Your task to perform on an android device: turn on the 12-hour format for clock Image 0: 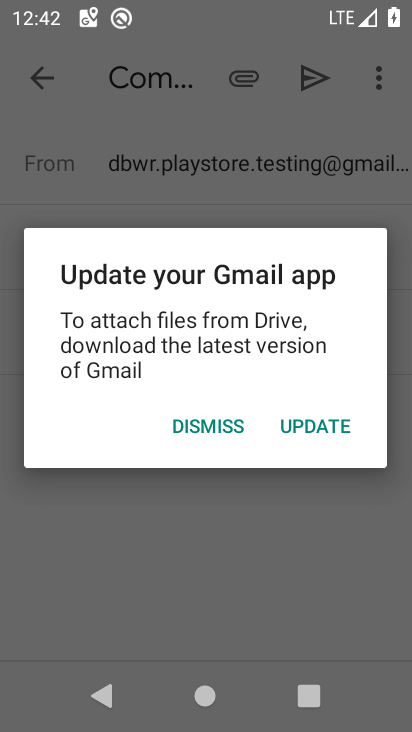
Step 0: click (213, 431)
Your task to perform on an android device: turn on the 12-hour format for clock Image 1: 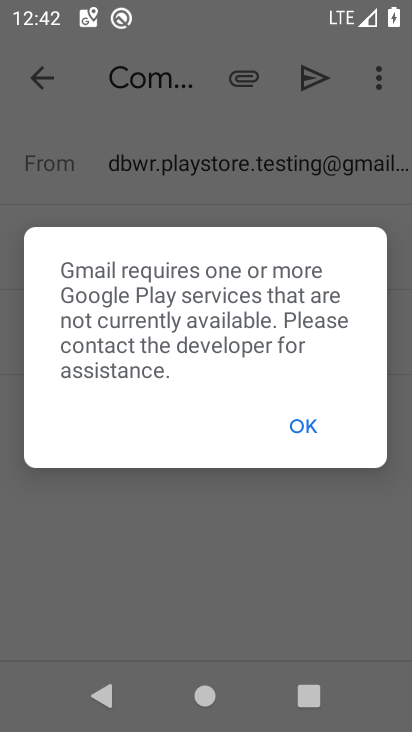
Step 1: click (308, 421)
Your task to perform on an android device: turn on the 12-hour format for clock Image 2: 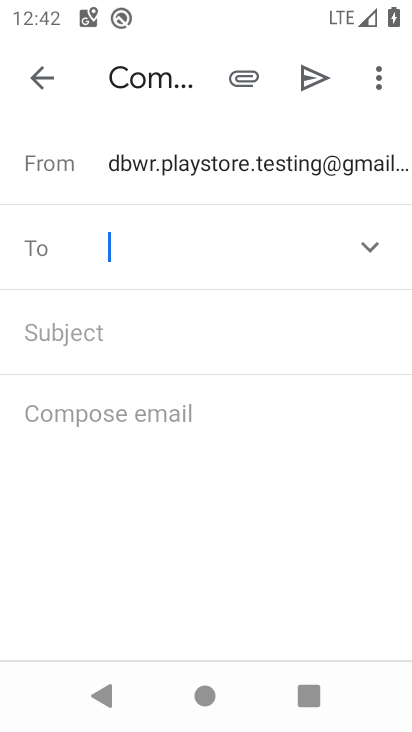
Step 2: click (35, 77)
Your task to perform on an android device: turn on the 12-hour format for clock Image 3: 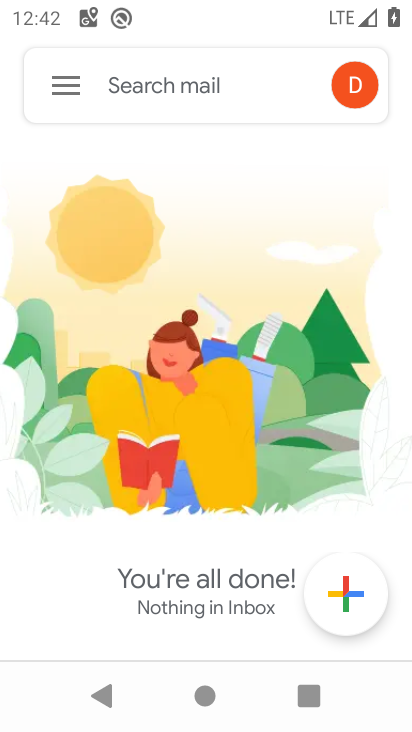
Step 3: press back button
Your task to perform on an android device: turn on the 12-hour format for clock Image 4: 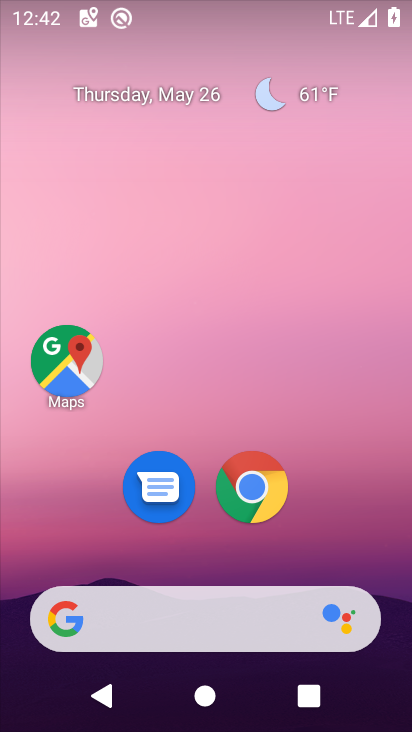
Step 4: drag from (254, 647) to (154, 35)
Your task to perform on an android device: turn on the 12-hour format for clock Image 5: 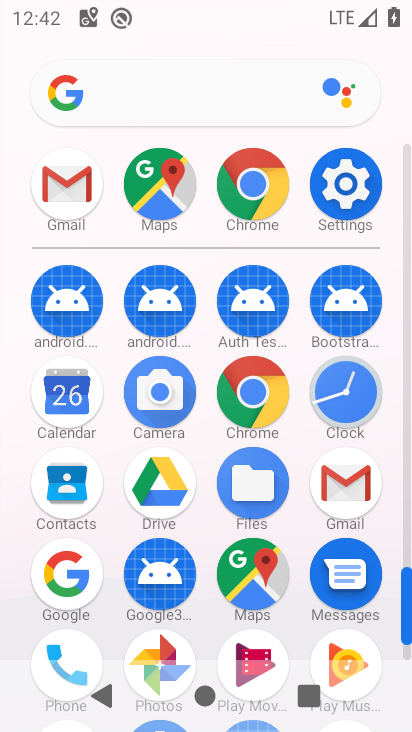
Step 5: click (310, 395)
Your task to perform on an android device: turn on the 12-hour format for clock Image 6: 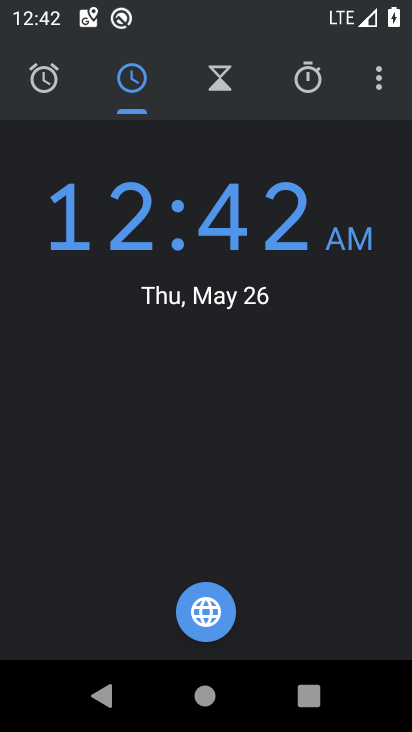
Step 6: click (373, 89)
Your task to perform on an android device: turn on the 12-hour format for clock Image 7: 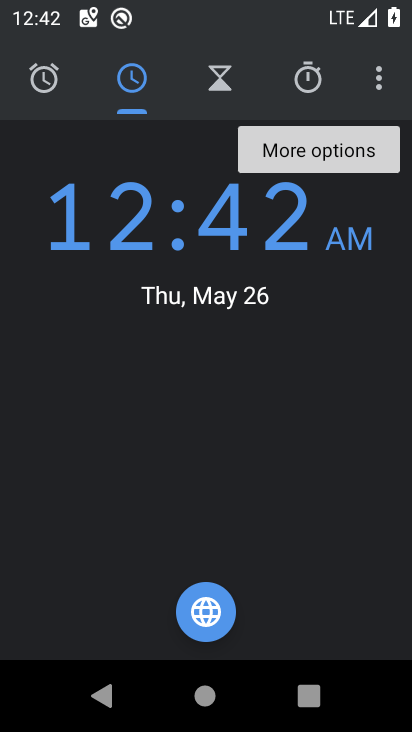
Step 7: click (340, 154)
Your task to perform on an android device: turn on the 12-hour format for clock Image 8: 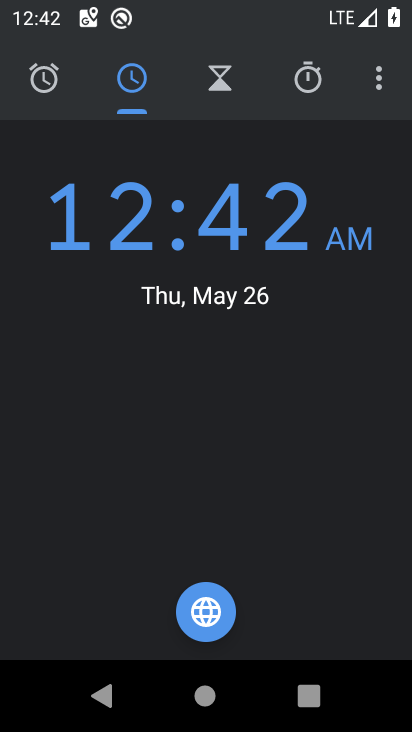
Step 8: click (373, 77)
Your task to perform on an android device: turn on the 12-hour format for clock Image 9: 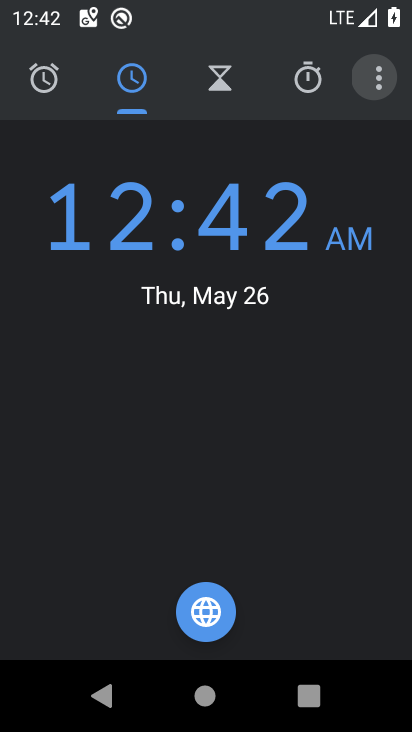
Step 9: click (373, 77)
Your task to perform on an android device: turn on the 12-hour format for clock Image 10: 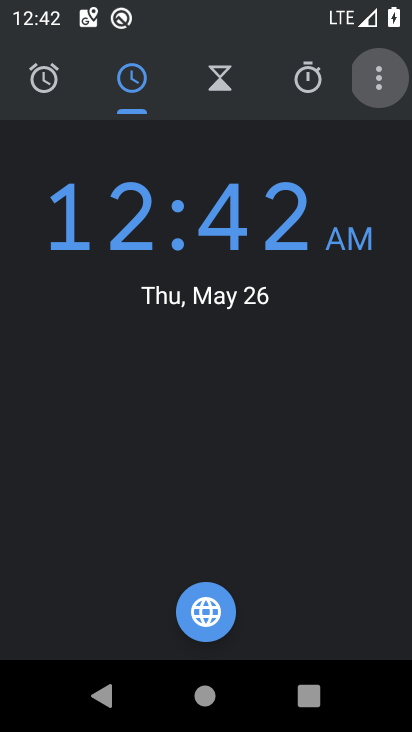
Step 10: click (373, 77)
Your task to perform on an android device: turn on the 12-hour format for clock Image 11: 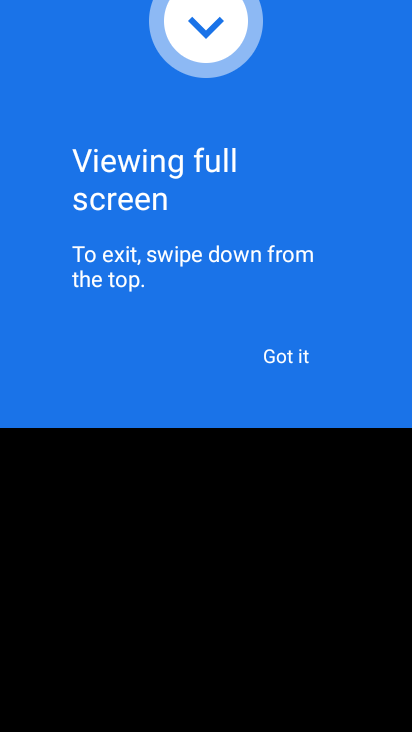
Step 11: press back button
Your task to perform on an android device: turn on the 12-hour format for clock Image 12: 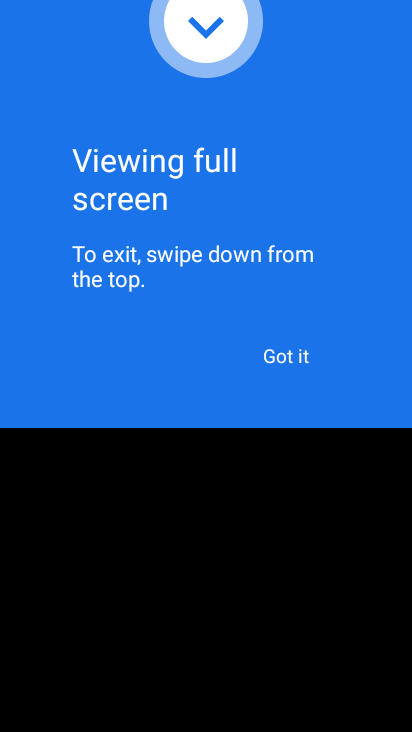
Step 12: drag from (351, 552) to (311, 248)
Your task to perform on an android device: turn on the 12-hour format for clock Image 13: 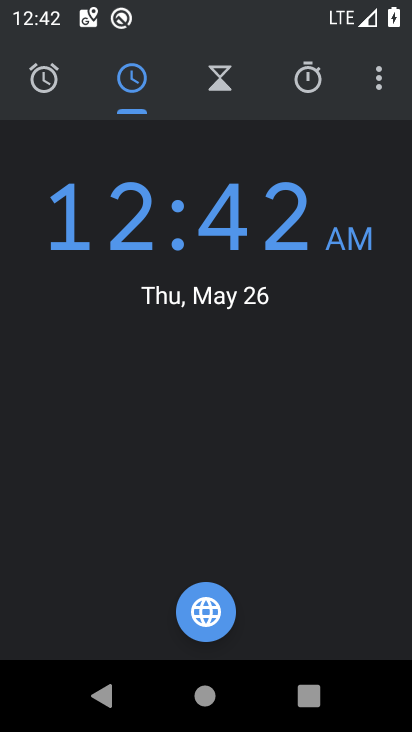
Step 13: drag from (372, 81) to (327, 155)
Your task to perform on an android device: turn on the 12-hour format for clock Image 14: 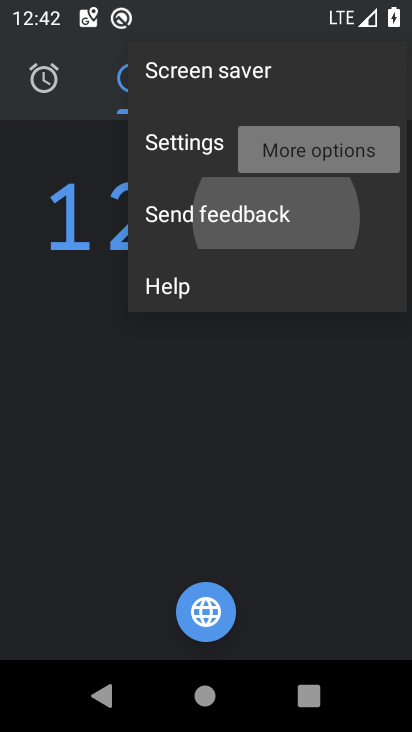
Step 14: click (327, 155)
Your task to perform on an android device: turn on the 12-hour format for clock Image 15: 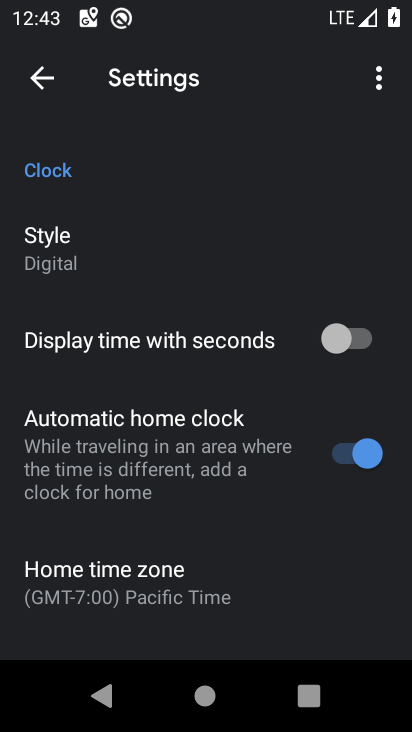
Step 15: drag from (200, 505) to (167, 123)
Your task to perform on an android device: turn on the 12-hour format for clock Image 16: 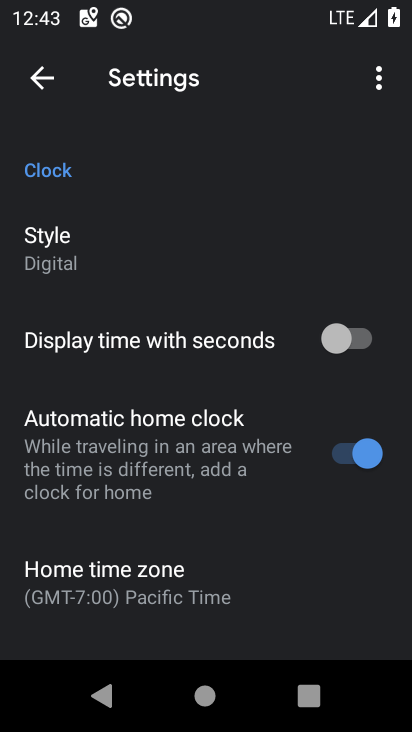
Step 16: drag from (199, 105) to (162, 44)
Your task to perform on an android device: turn on the 12-hour format for clock Image 17: 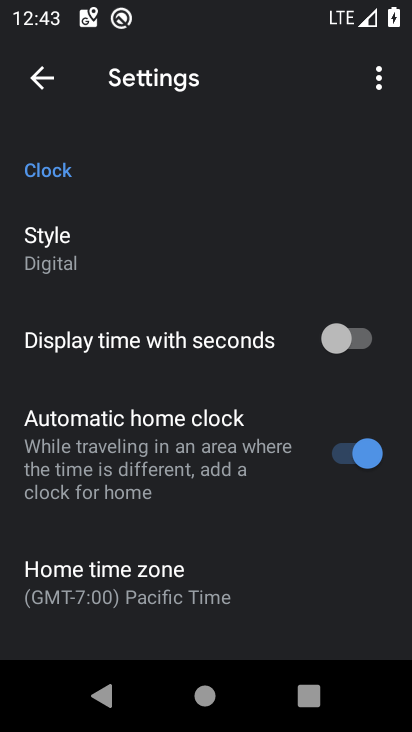
Step 17: drag from (186, 344) to (173, 24)
Your task to perform on an android device: turn on the 12-hour format for clock Image 18: 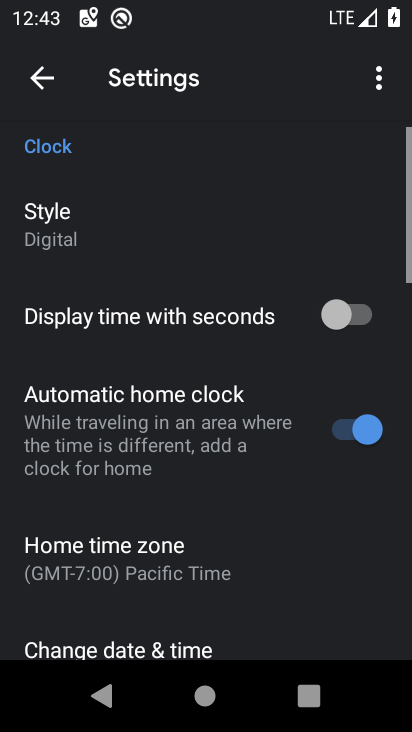
Step 18: drag from (198, 343) to (115, 65)
Your task to perform on an android device: turn on the 12-hour format for clock Image 19: 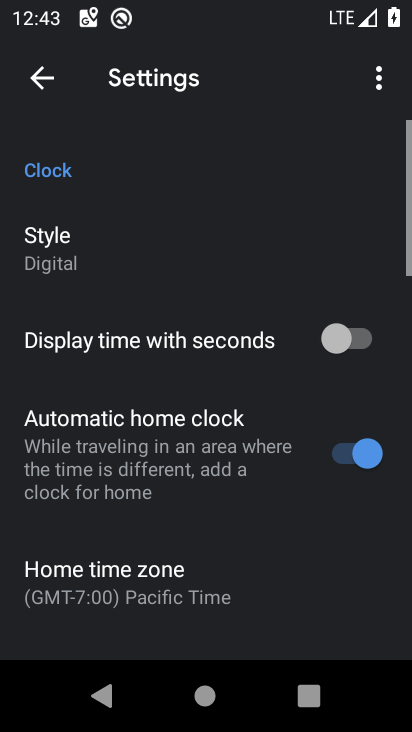
Step 19: drag from (174, 409) to (185, 125)
Your task to perform on an android device: turn on the 12-hour format for clock Image 20: 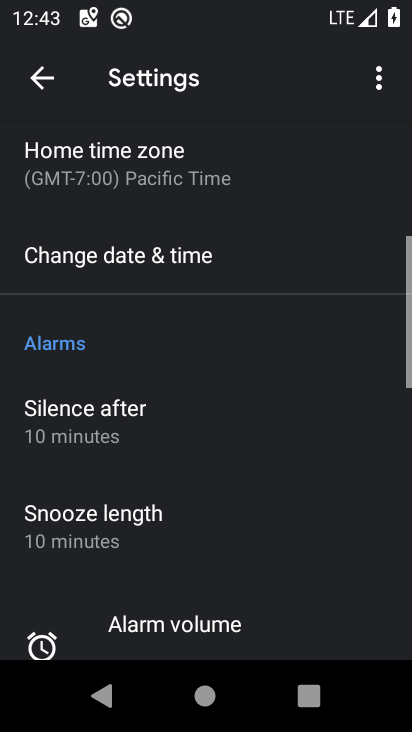
Step 20: click (219, 226)
Your task to perform on an android device: turn on the 12-hour format for clock Image 21: 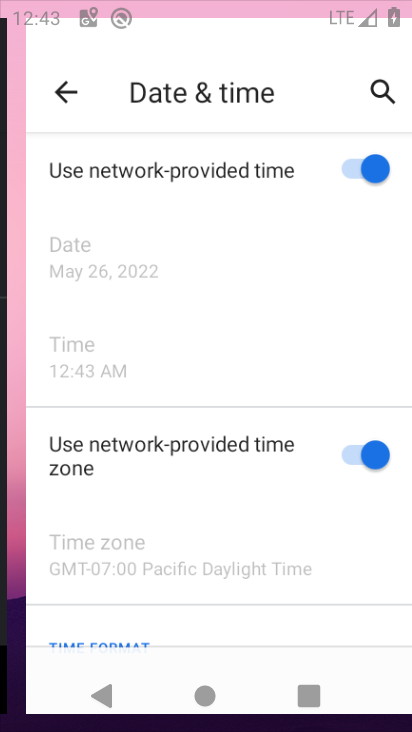
Step 21: drag from (276, 318) to (261, 38)
Your task to perform on an android device: turn on the 12-hour format for clock Image 22: 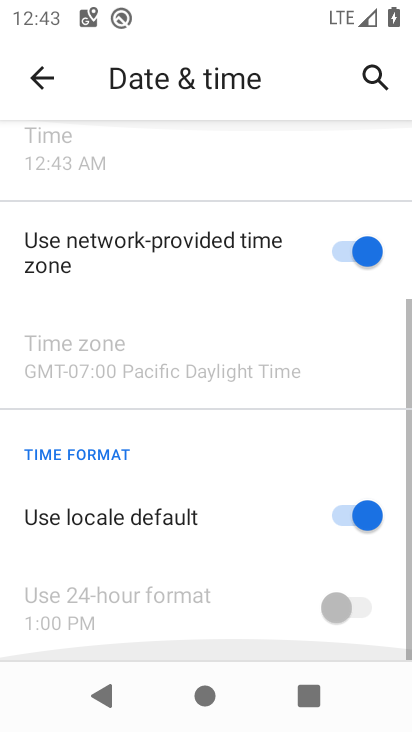
Step 22: drag from (199, 331) to (224, 129)
Your task to perform on an android device: turn on the 12-hour format for clock Image 23: 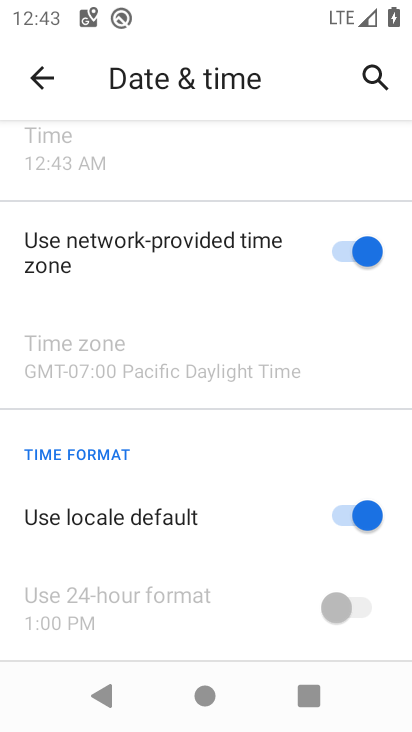
Step 23: press back button
Your task to perform on an android device: turn on the 12-hour format for clock Image 24: 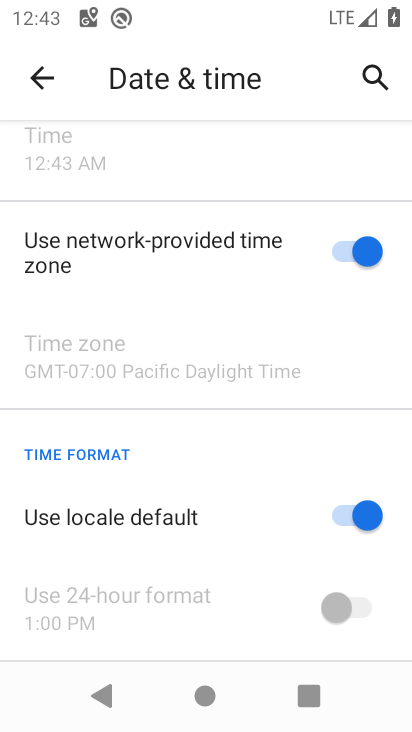
Step 24: press back button
Your task to perform on an android device: turn on the 12-hour format for clock Image 25: 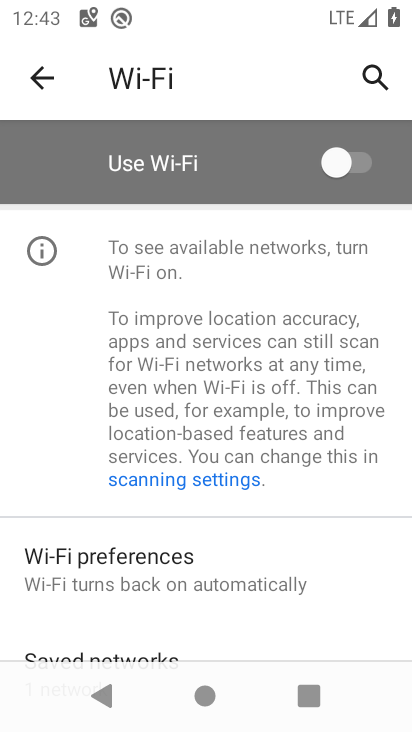
Step 25: click (33, 68)
Your task to perform on an android device: turn on the 12-hour format for clock Image 26: 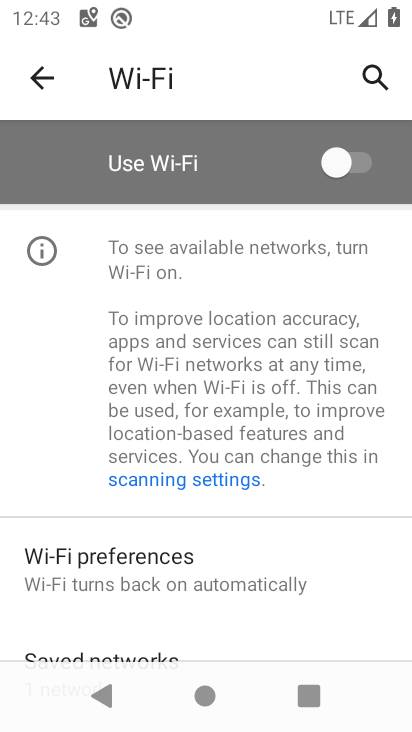
Step 26: click (33, 68)
Your task to perform on an android device: turn on the 12-hour format for clock Image 27: 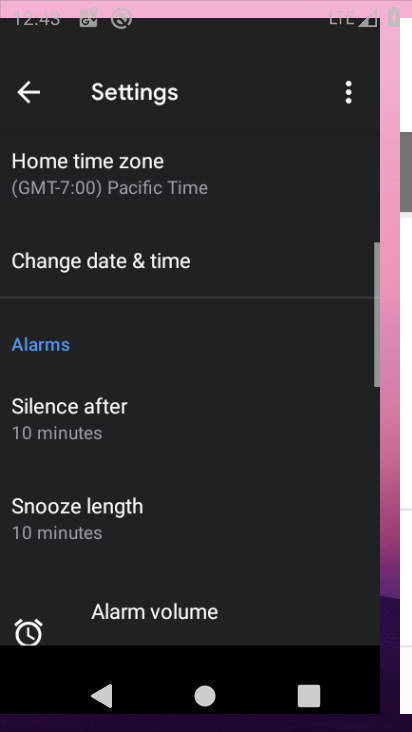
Step 27: click (32, 67)
Your task to perform on an android device: turn on the 12-hour format for clock Image 28: 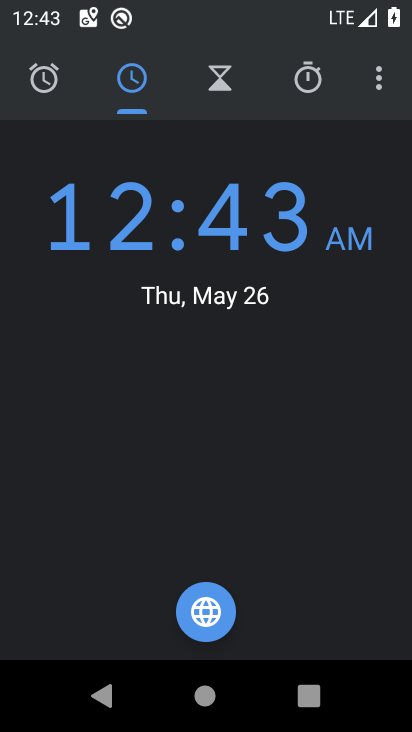
Step 28: drag from (379, 73) to (349, 145)
Your task to perform on an android device: turn on the 12-hour format for clock Image 29: 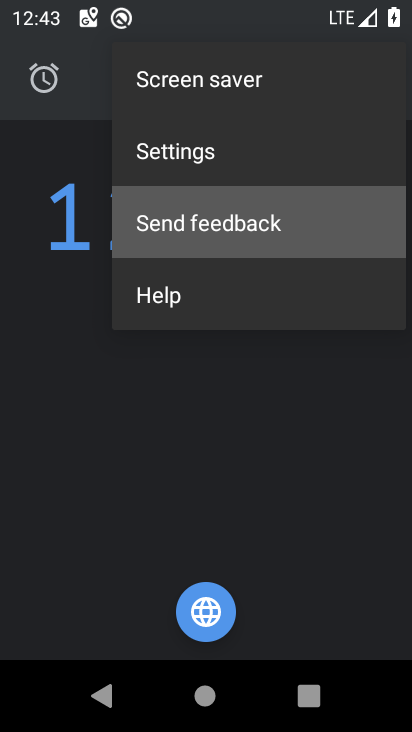
Step 29: click (349, 145)
Your task to perform on an android device: turn on the 12-hour format for clock Image 30: 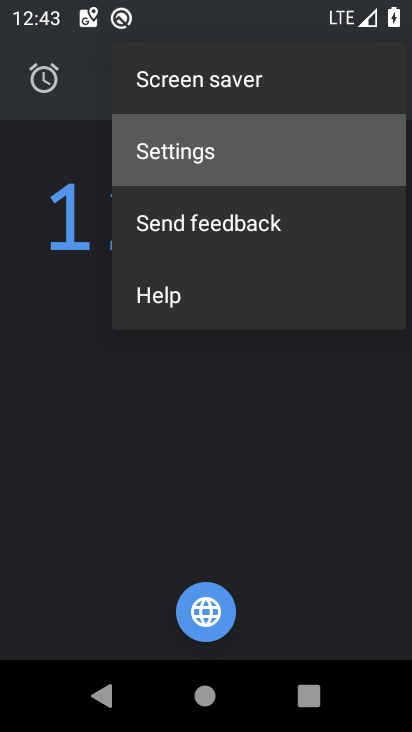
Step 30: click (349, 145)
Your task to perform on an android device: turn on the 12-hour format for clock Image 31: 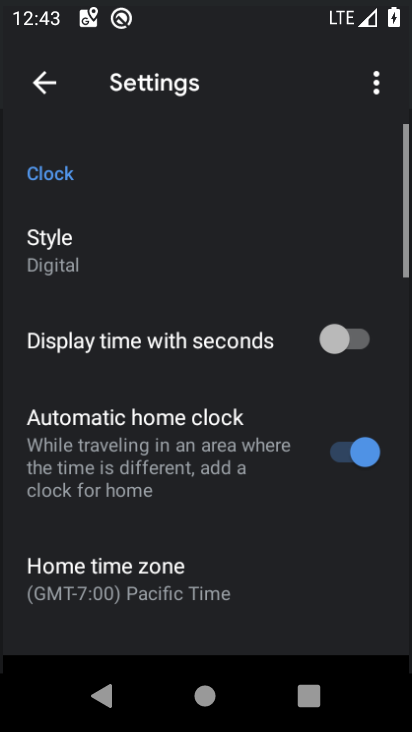
Step 31: click (349, 145)
Your task to perform on an android device: turn on the 12-hour format for clock Image 32: 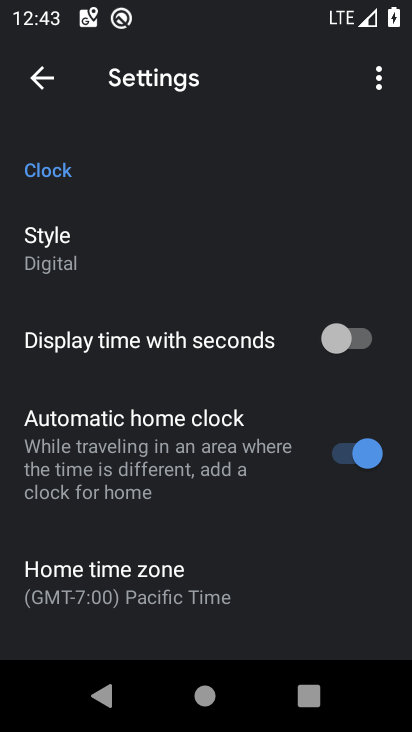
Step 32: click (148, 282)
Your task to perform on an android device: turn on the 12-hour format for clock Image 33: 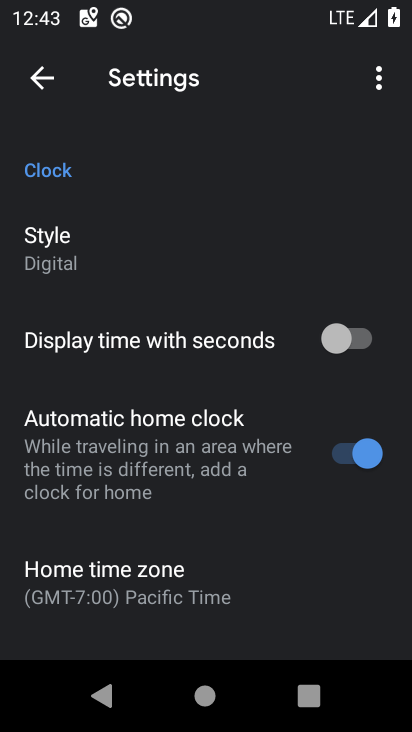
Step 33: drag from (179, 370) to (163, 264)
Your task to perform on an android device: turn on the 12-hour format for clock Image 34: 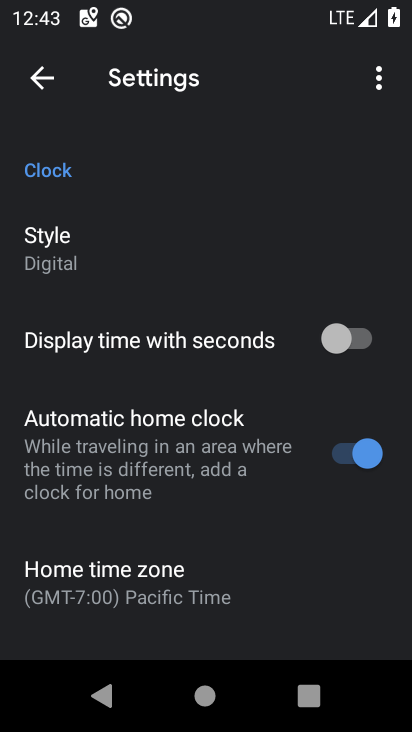
Step 34: drag from (198, 481) to (201, 283)
Your task to perform on an android device: turn on the 12-hour format for clock Image 35: 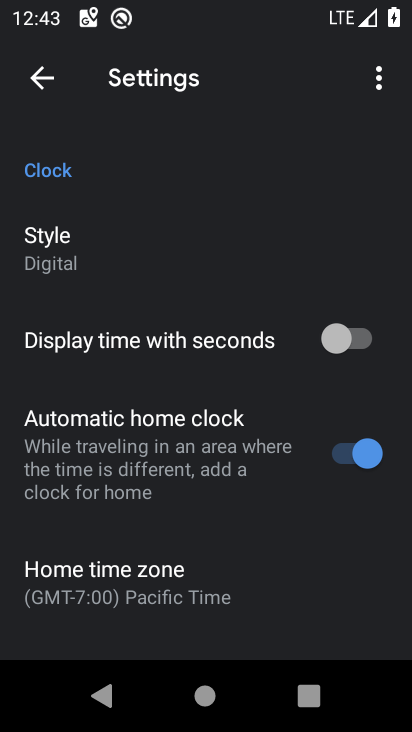
Step 35: drag from (150, 476) to (127, 315)
Your task to perform on an android device: turn on the 12-hour format for clock Image 36: 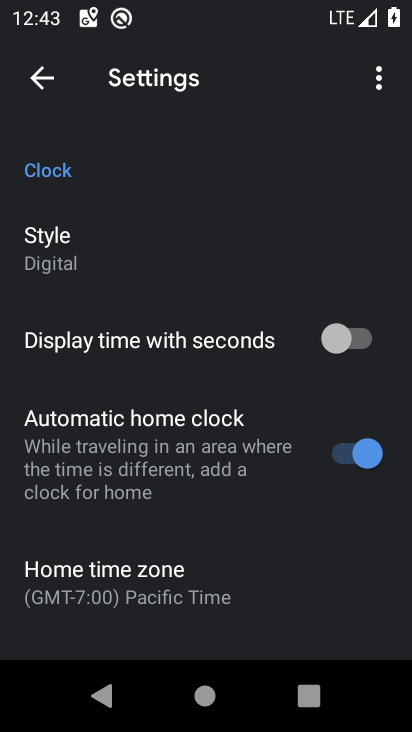
Step 36: drag from (122, 527) to (122, 240)
Your task to perform on an android device: turn on the 12-hour format for clock Image 37: 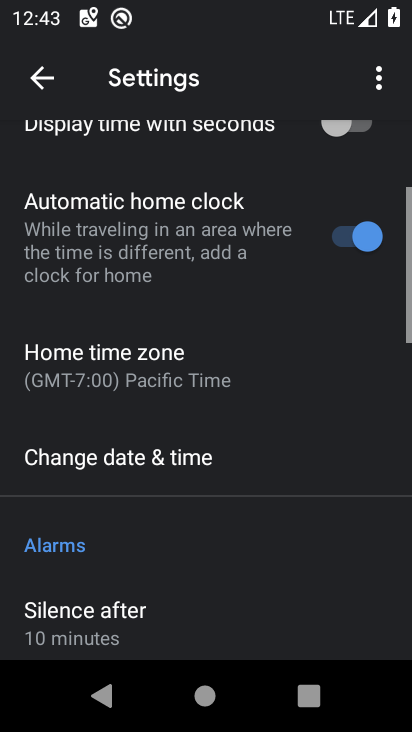
Step 37: drag from (158, 439) to (160, 166)
Your task to perform on an android device: turn on the 12-hour format for clock Image 38: 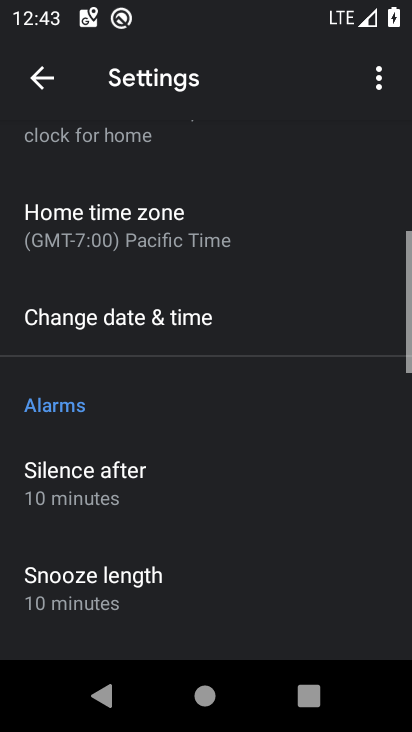
Step 38: drag from (186, 496) to (186, 173)
Your task to perform on an android device: turn on the 12-hour format for clock Image 39: 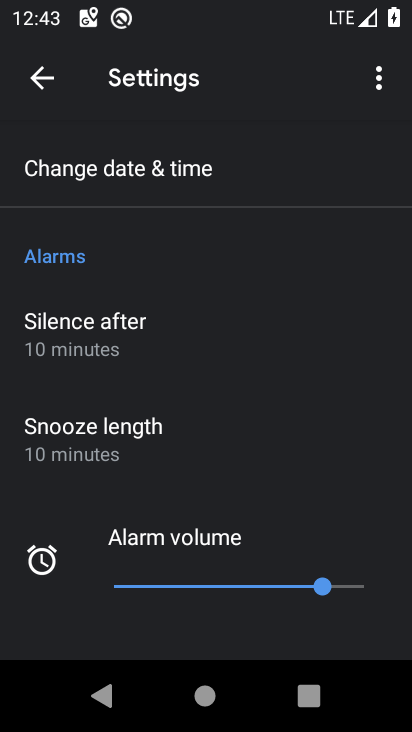
Step 39: click (146, 179)
Your task to perform on an android device: turn on the 12-hour format for clock Image 40: 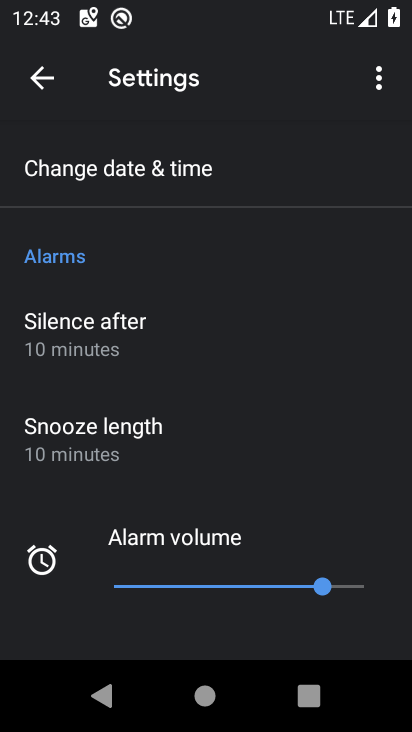
Step 40: click (146, 178)
Your task to perform on an android device: turn on the 12-hour format for clock Image 41: 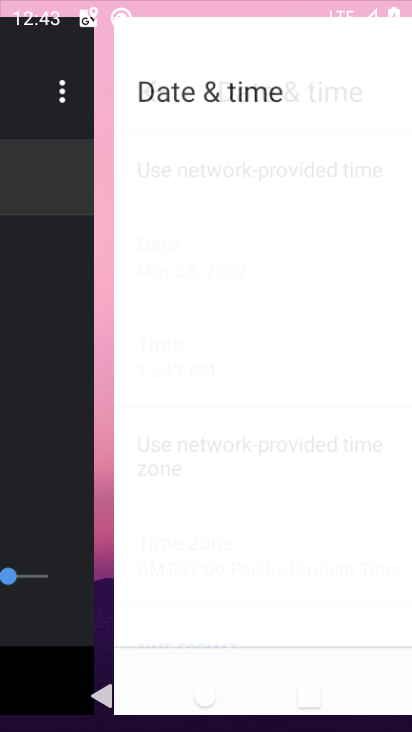
Step 41: click (146, 178)
Your task to perform on an android device: turn on the 12-hour format for clock Image 42: 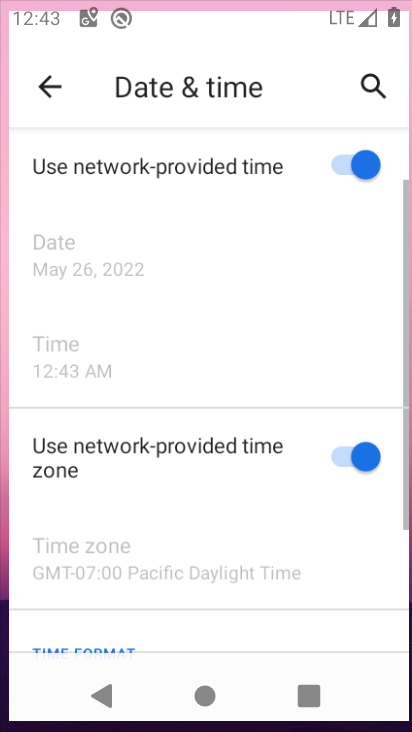
Step 42: click (146, 178)
Your task to perform on an android device: turn on the 12-hour format for clock Image 43: 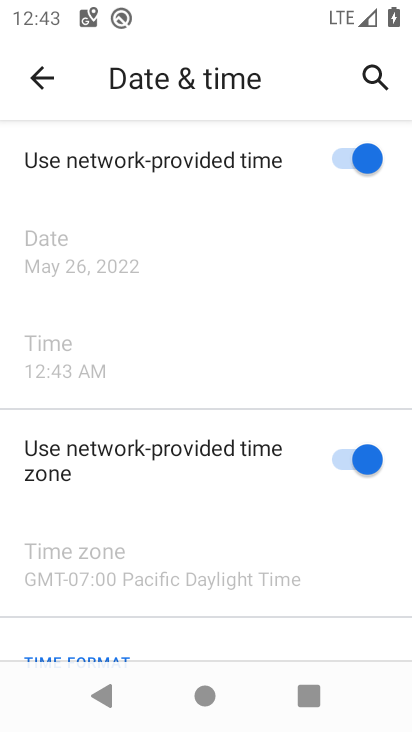
Step 43: task complete